Your task to perform on an android device: change text size in settings app Image 0: 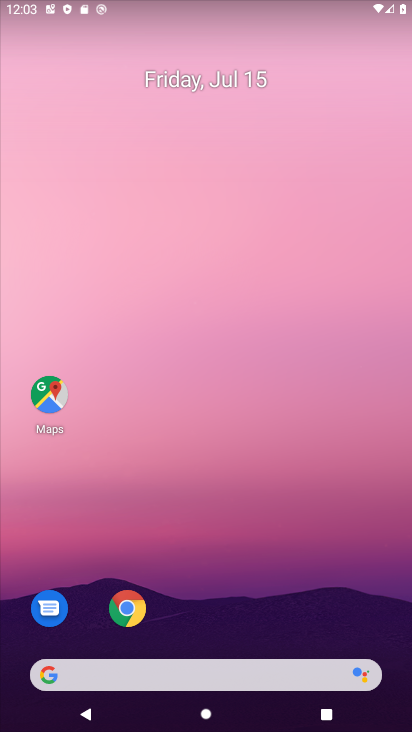
Step 0: drag from (277, 655) to (299, 64)
Your task to perform on an android device: change text size in settings app Image 1: 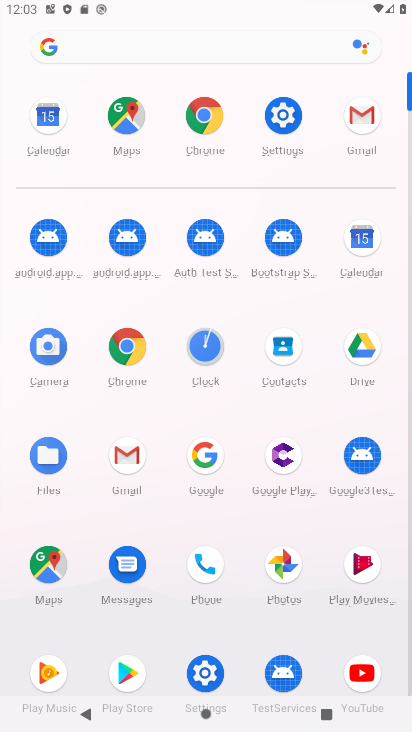
Step 1: click (293, 105)
Your task to perform on an android device: change text size in settings app Image 2: 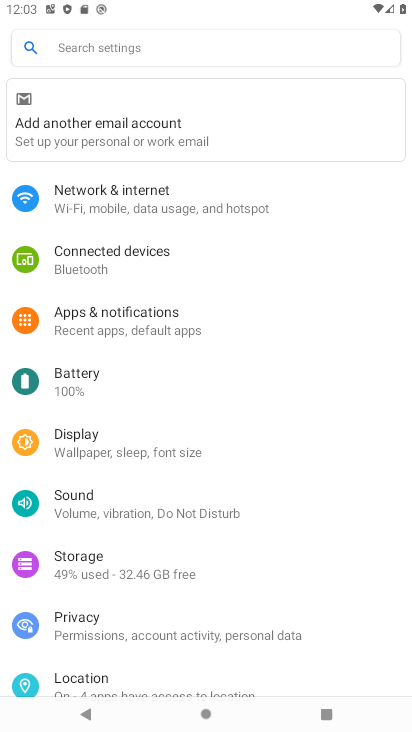
Step 2: drag from (233, 641) to (149, 81)
Your task to perform on an android device: change text size in settings app Image 3: 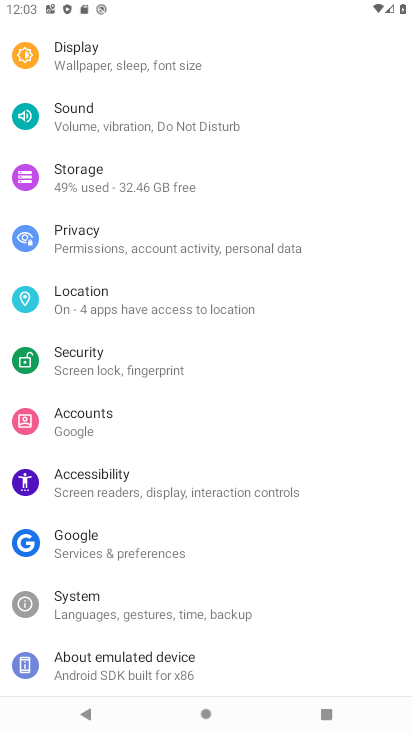
Step 3: click (145, 481)
Your task to perform on an android device: change text size in settings app Image 4: 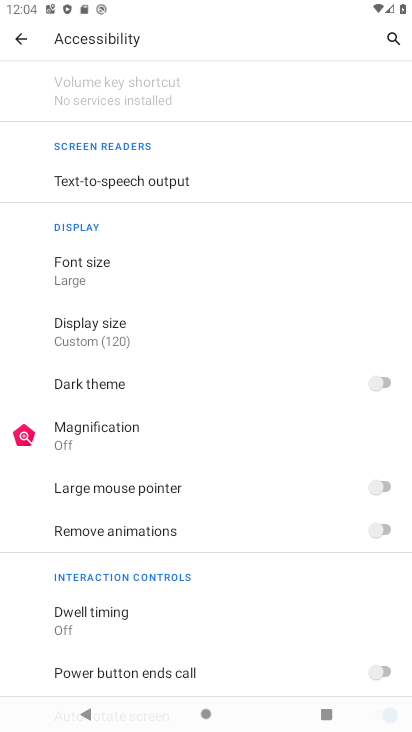
Step 4: click (82, 261)
Your task to perform on an android device: change text size in settings app Image 5: 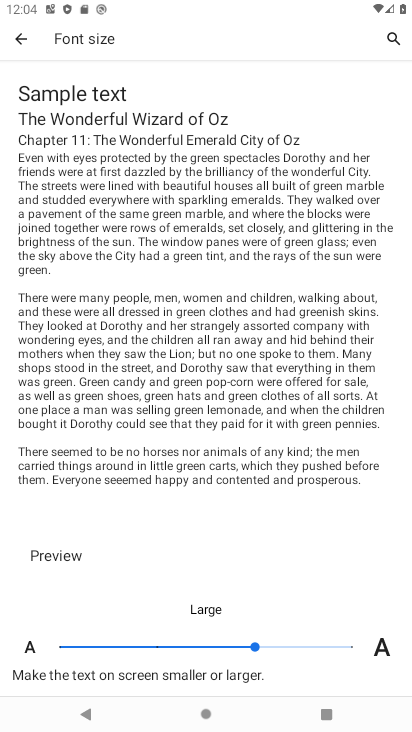
Step 5: click (320, 646)
Your task to perform on an android device: change text size in settings app Image 6: 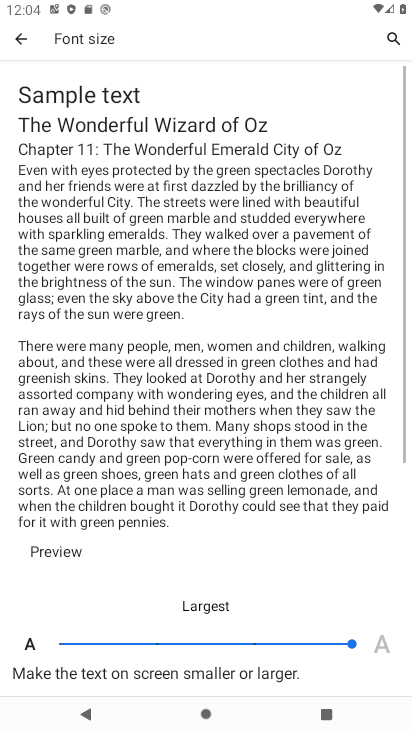
Step 6: task complete